Your task to perform on an android device: turn on wifi Image 0: 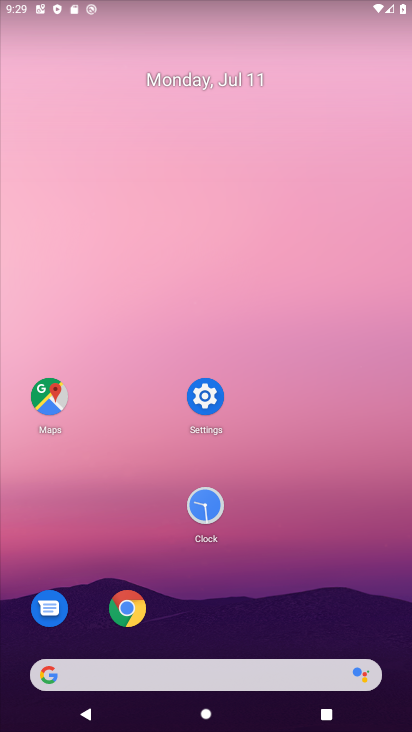
Step 0: click (191, 386)
Your task to perform on an android device: turn on wifi Image 1: 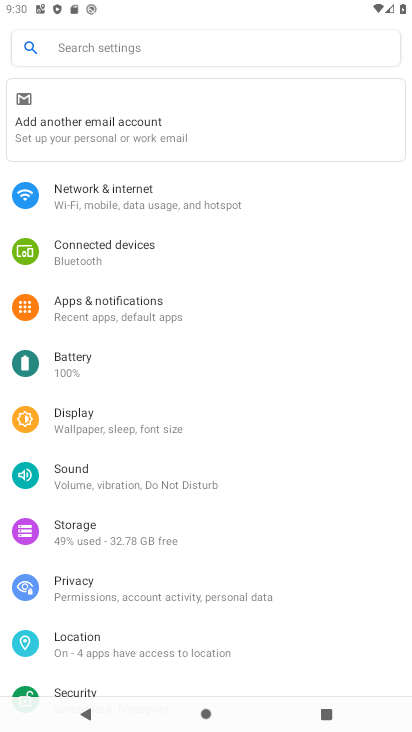
Step 1: click (125, 104)
Your task to perform on an android device: turn on wifi Image 2: 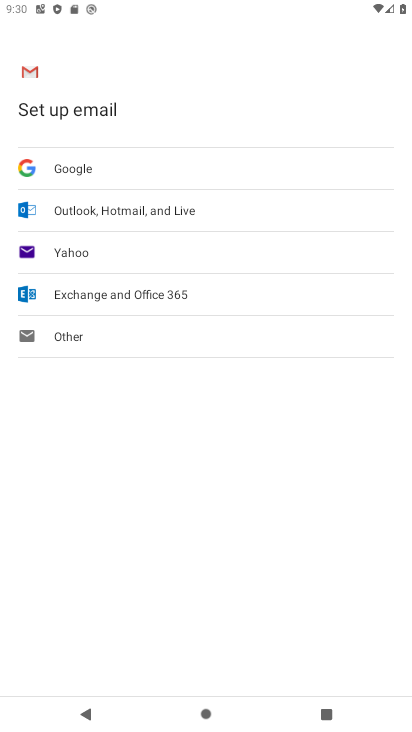
Step 2: press home button
Your task to perform on an android device: turn on wifi Image 3: 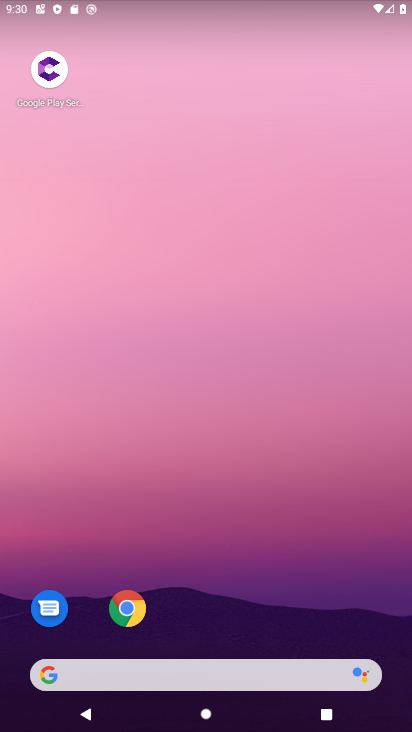
Step 3: drag from (36, 347) to (406, 350)
Your task to perform on an android device: turn on wifi Image 4: 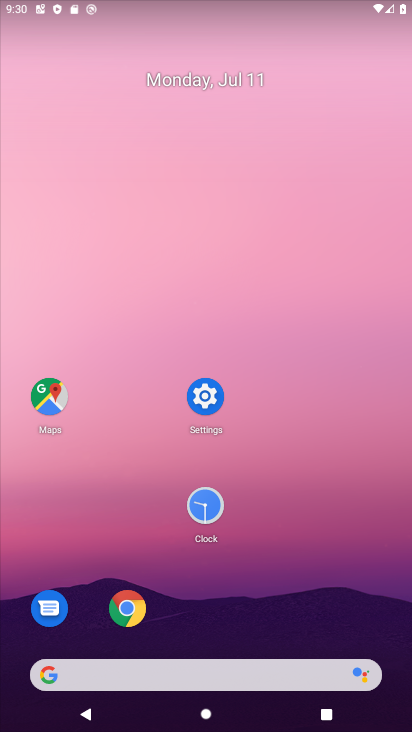
Step 4: click (199, 394)
Your task to perform on an android device: turn on wifi Image 5: 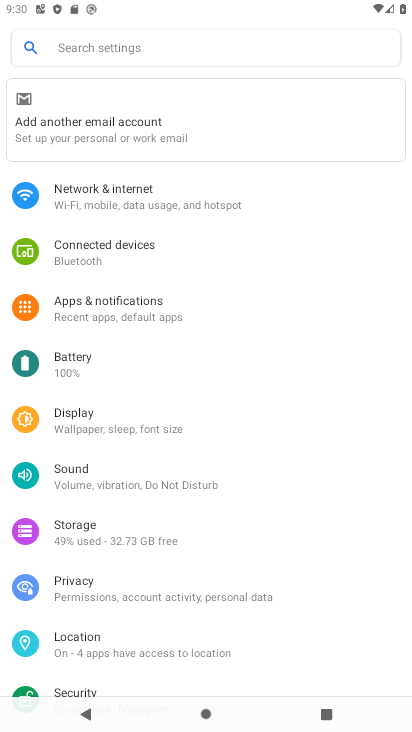
Step 5: click (99, 193)
Your task to perform on an android device: turn on wifi Image 6: 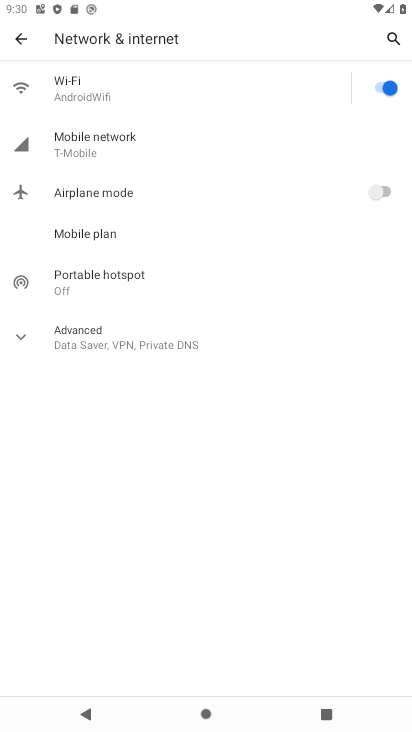
Step 6: click (178, 82)
Your task to perform on an android device: turn on wifi Image 7: 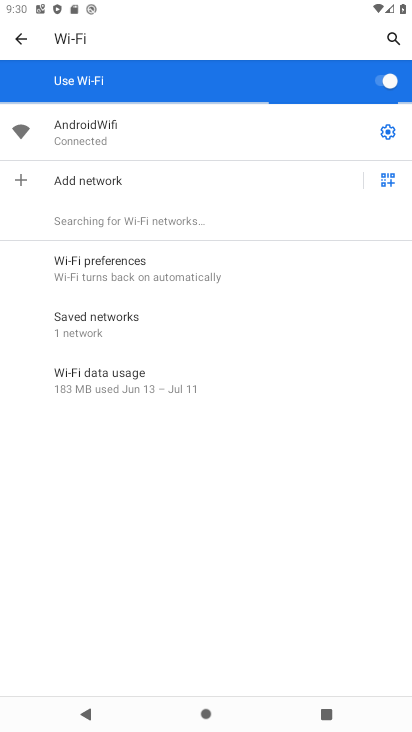
Step 7: task complete